Your task to perform on an android device: turn on location history Image 0: 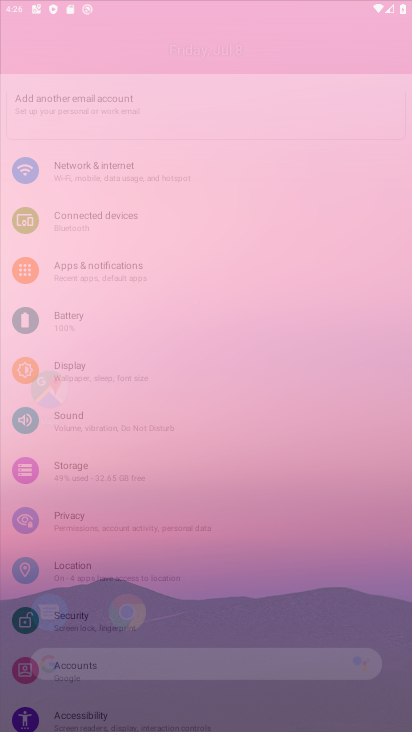
Step 0: press home button
Your task to perform on an android device: turn on location history Image 1: 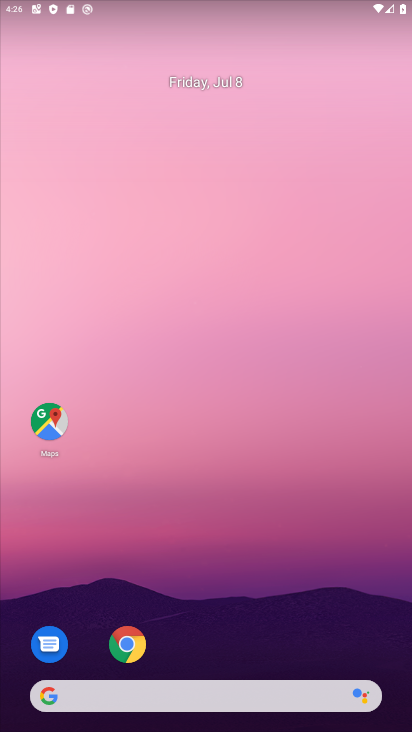
Step 1: drag from (204, 664) to (287, 117)
Your task to perform on an android device: turn on location history Image 2: 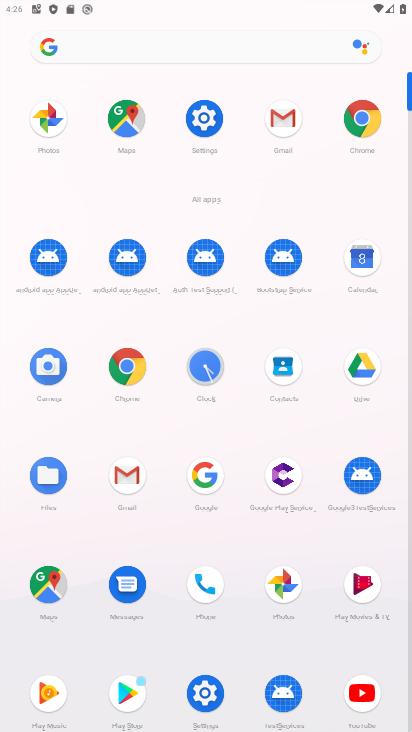
Step 2: click (202, 110)
Your task to perform on an android device: turn on location history Image 3: 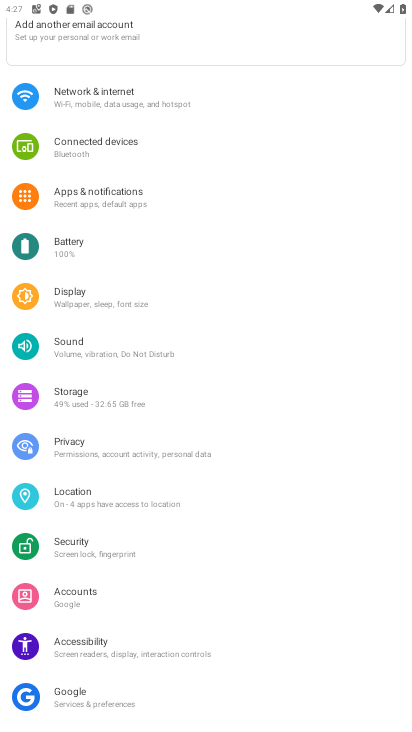
Step 3: click (99, 487)
Your task to perform on an android device: turn on location history Image 4: 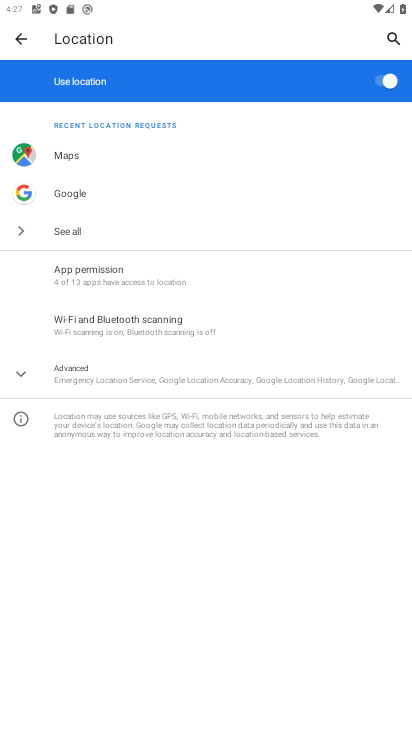
Step 4: click (20, 368)
Your task to perform on an android device: turn on location history Image 5: 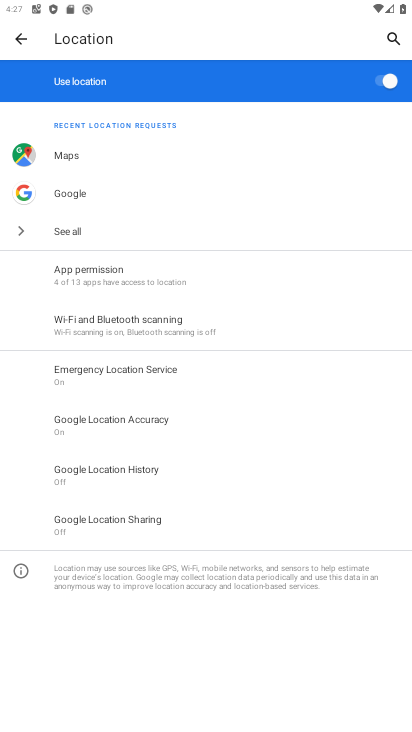
Step 5: click (175, 470)
Your task to perform on an android device: turn on location history Image 6: 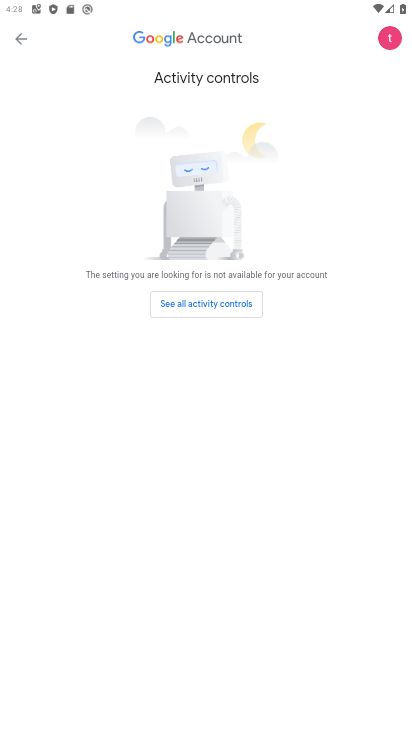
Step 6: click (207, 306)
Your task to perform on an android device: turn on location history Image 7: 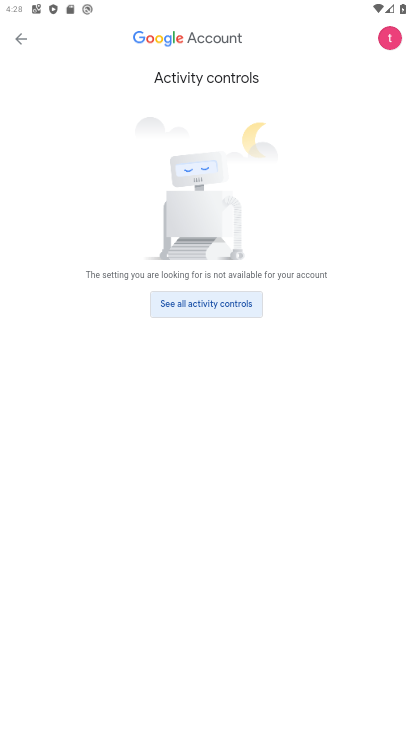
Step 7: click (202, 301)
Your task to perform on an android device: turn on location history Image 8: 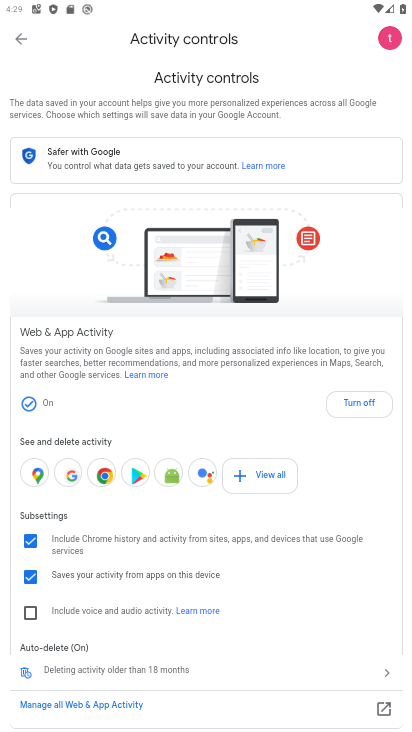
Step 8: task complete